Your task to perform on an android device: What's on my calendar tomorrow? Image 0: 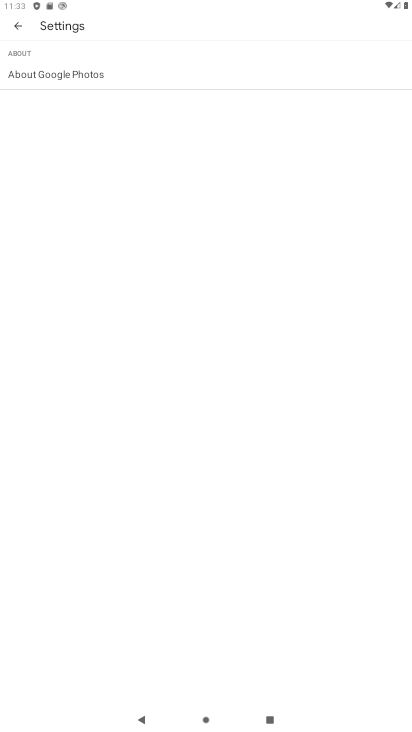
Step 0: press home button
Your task to perform on an android device: What's on my calendar tomorrow? Image 1: 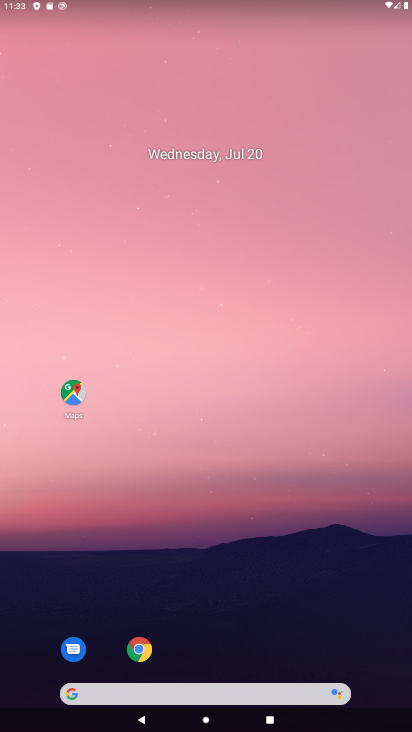
Step 1: drag from (263, 627) to (374, 63)
Your task to perform on an android device: What's on my calendar tomorrow? Image 2: 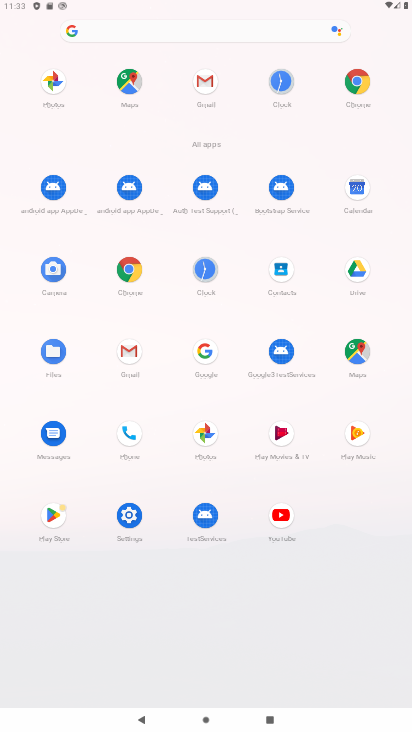
Step 2: click (358, 190)
Your task to perform on an android device: What's on my calendar tomorrow? Image 3: 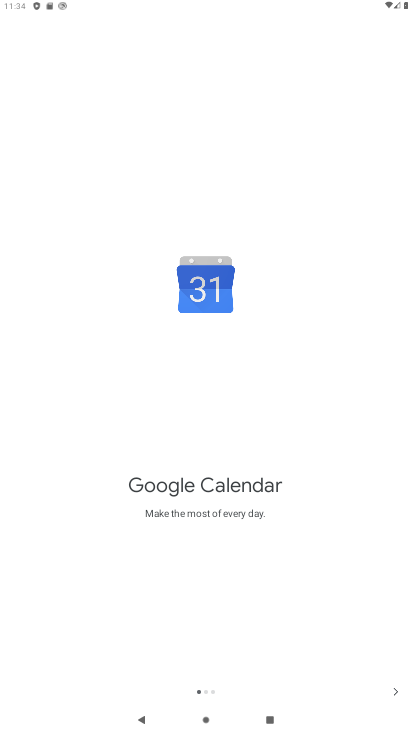
Step 3: click (399, 687)
Your task to perform on an android device: What's on my calendar tomorrow? Image 4: 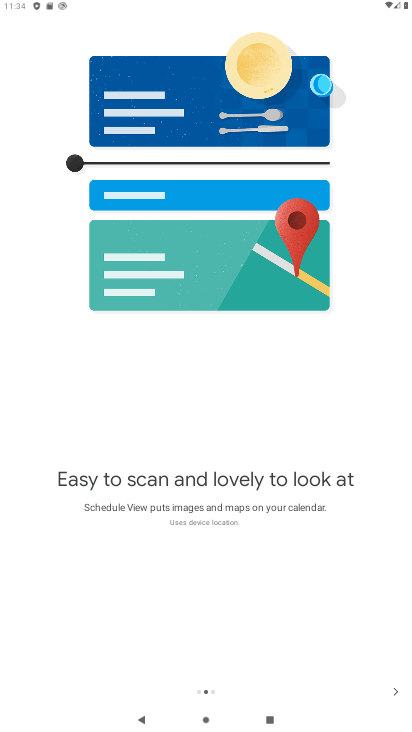
Step 4: click (399, 693)
Your task to perform on an android device: What's on my calendar tomorrow? Image 5: 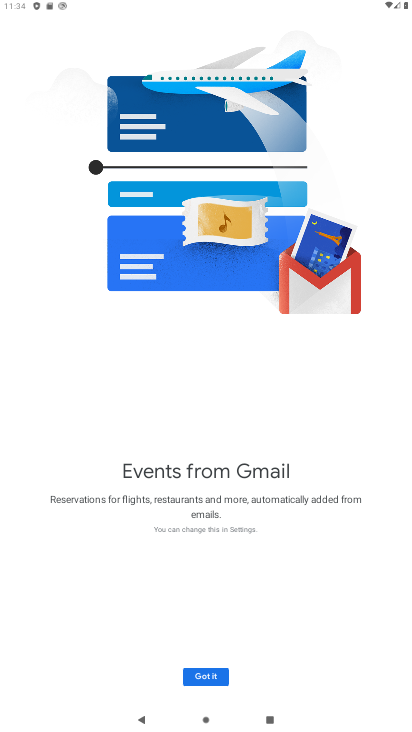
Step 5: click (211, 673)
Your task to perform on an android device: What's on my calendar tomorrow? Image 6: 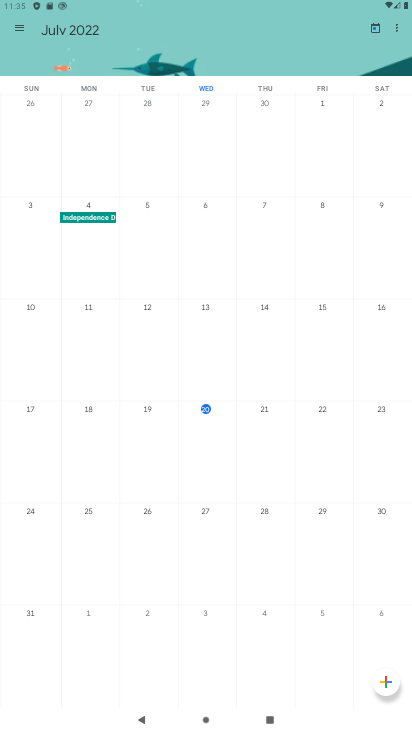
Step 6: click (327, 408)
Your task to perform on an android device: What's on my calendar tomorrow? Image 7: 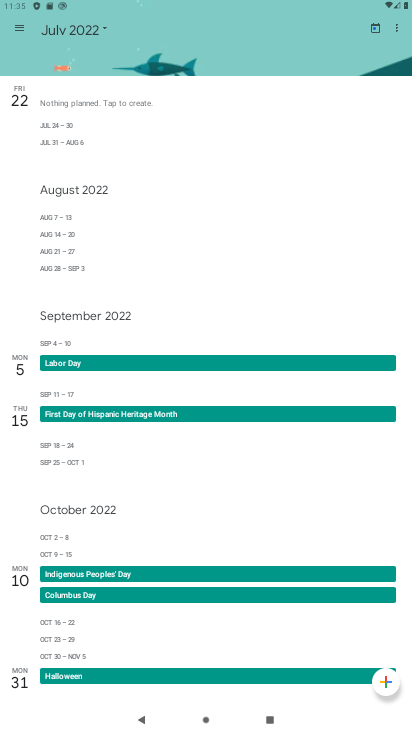
Step 7: task complete